Your task to perform on an android device: Check the weather Image 0: 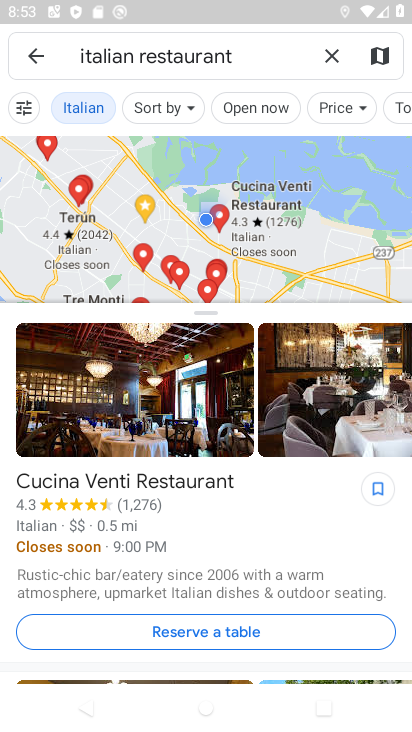
Step 0: press home button
Your task to perform on an android device: Check the weather Image 1: 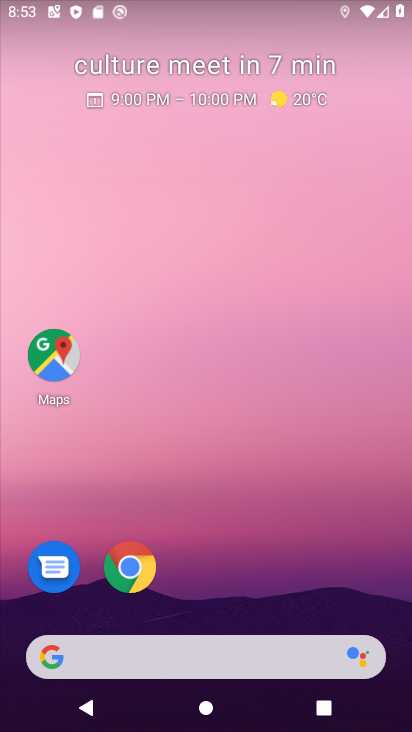
Step 1: click (313, 101)
Your task to perform on an android device: Check the weather Image 2: 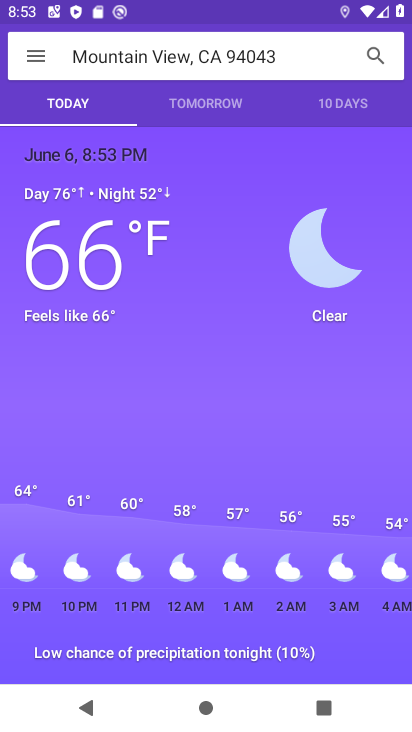
Step 2: task complete